Your task to perform on an android device: find photos in the google photos app Image 0: 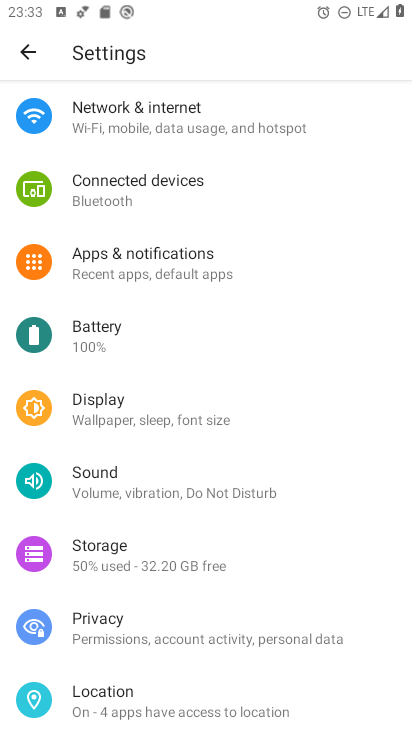
Step 0: press home button
Your task to perform on an android device: find photos in the google photos app Image 1: 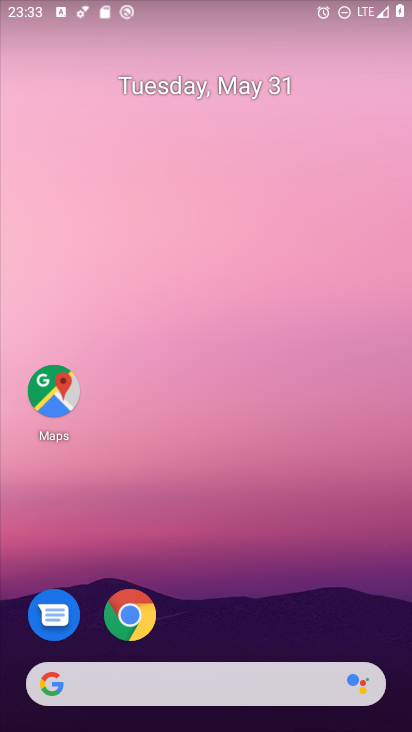
Step 1: drag from (387, 637) to (278, 26)
Your task to perform on an android device: find photos in the google photos app Image 2: 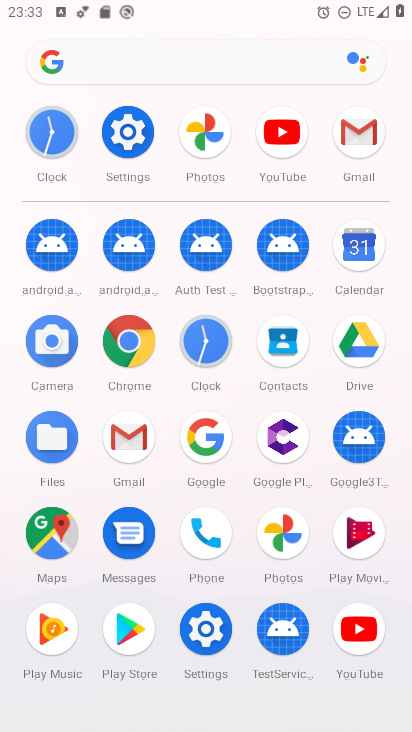
Step 2: click (281, 531)
Your task to perform on an android device: find photos in the google photos app Image 3: 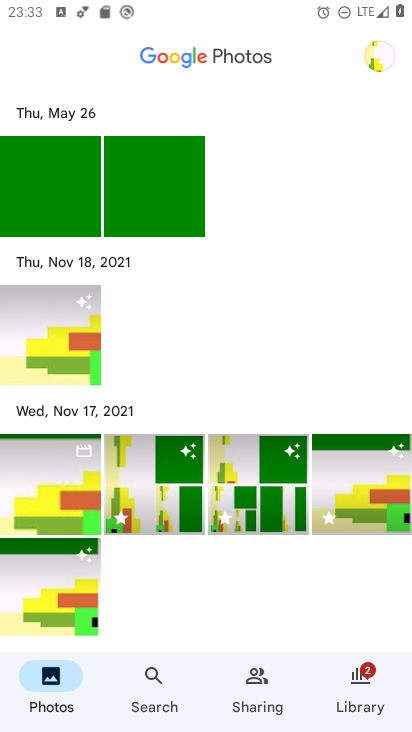
Step 3: task complete